Your task to perform on an android device: Open Google Maps Image 0: 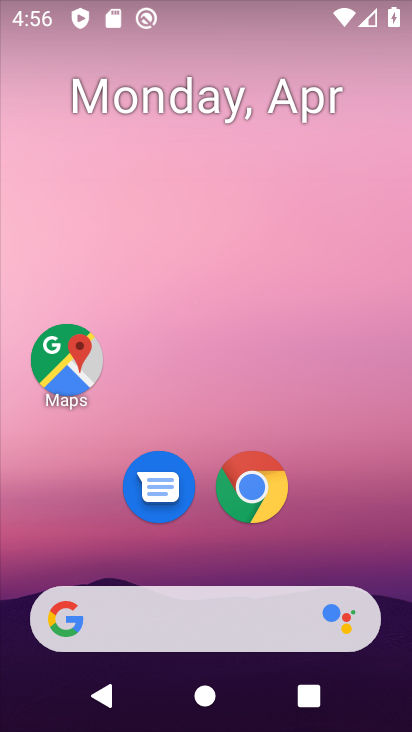
Step 0: click (76, 384)
Your task to perform on an android device: Open Google Maps Image 1: 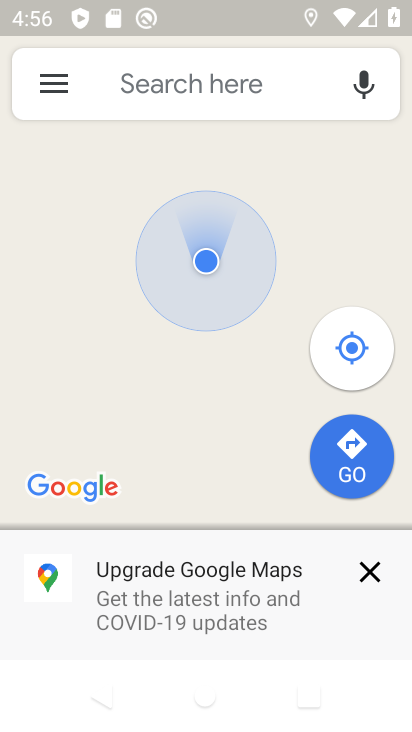
Step 1: click (374, 569)
Your task to perform on an android device: Open Google Maps Image 2: 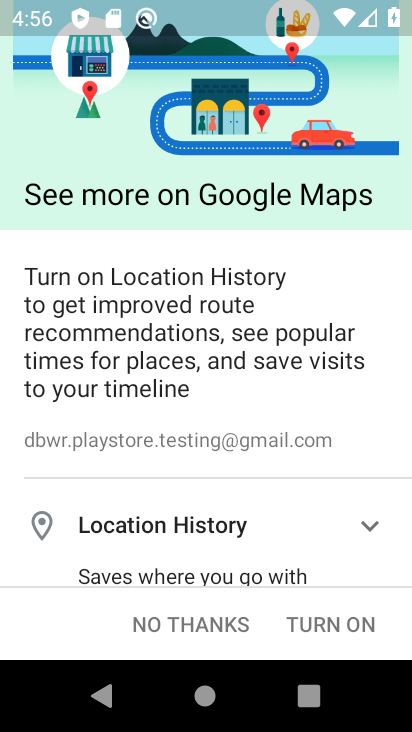
Step 2: click (179, 638)
Your task to perform on an android device: Open Google Maps Image 3: 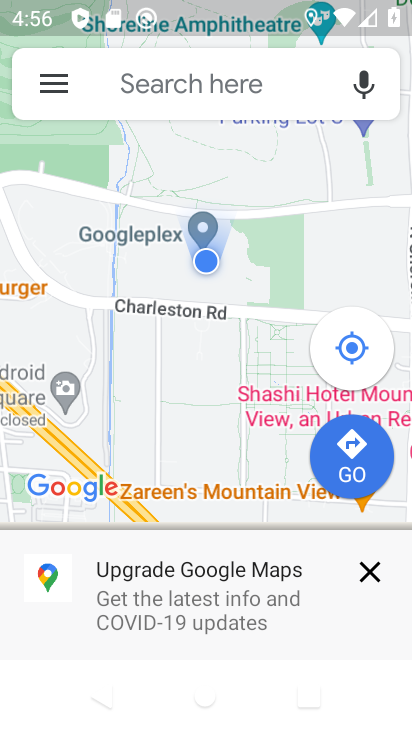
Step 3: task complete